Your task to perform on an android device: Empty the shopping cart on amazon. Image 0: 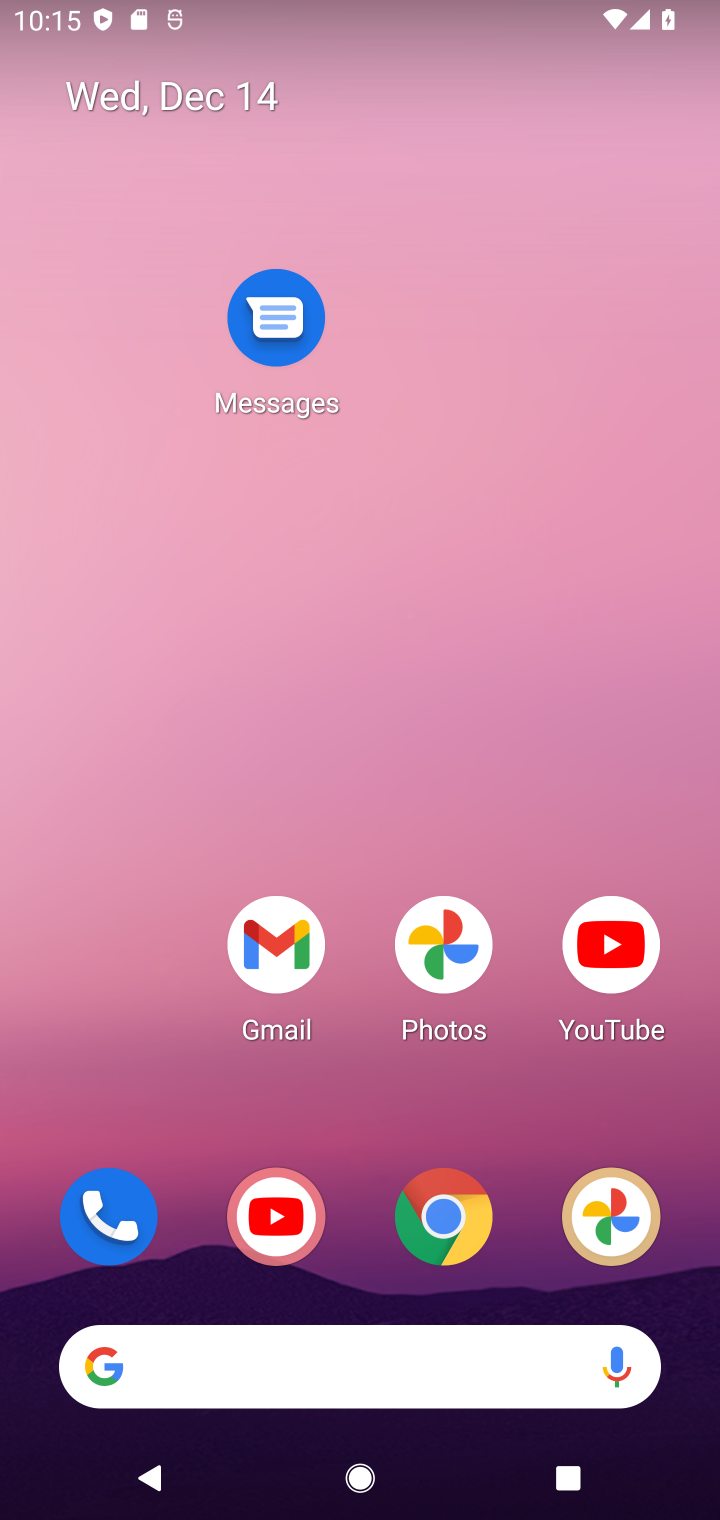
Step 0: drag from (428, 1351) to (340, 414)
Your task to perform on an android device: Empty the shopping cart on amazon. Image 1: 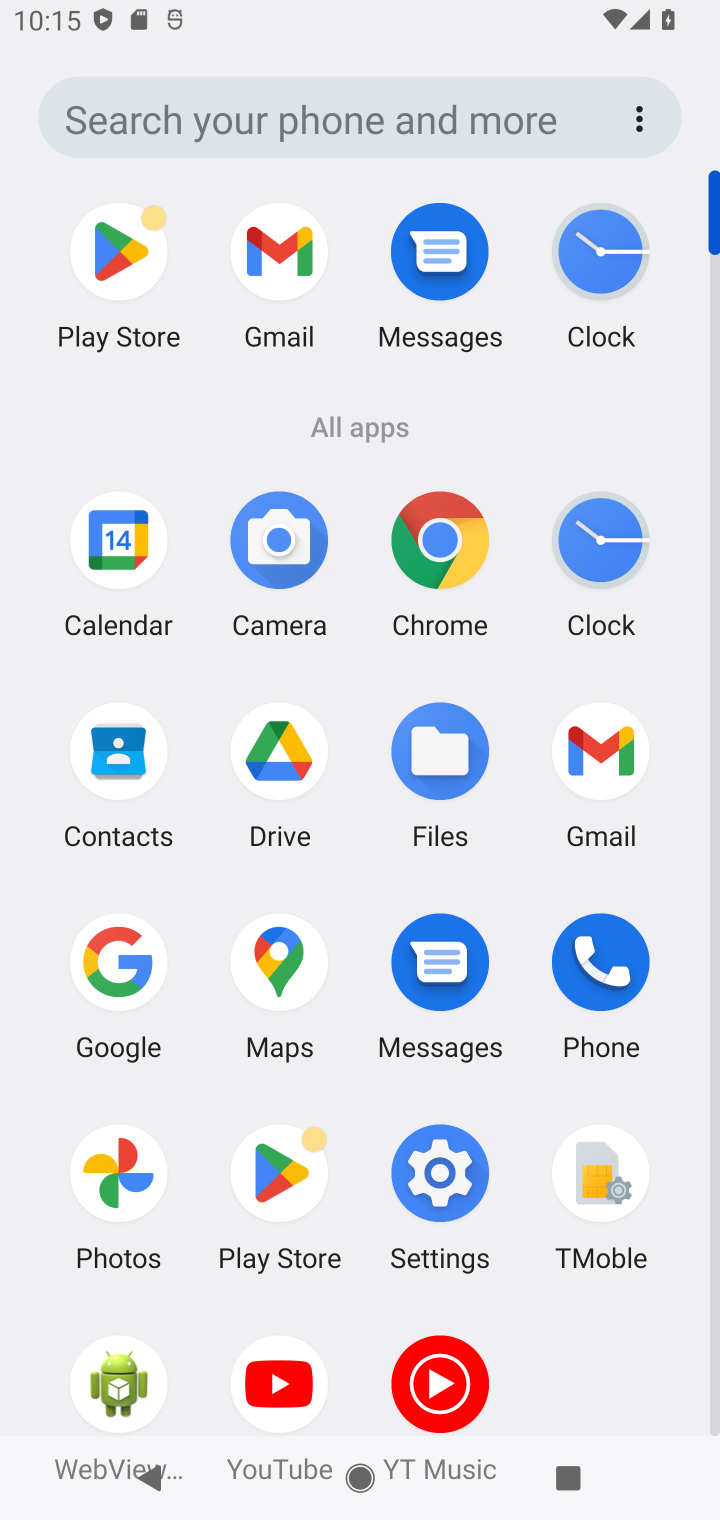
Step 1: click (143, 983)
Your task to perform on an android device: Empty the shopping cart on amazon. Image 2: 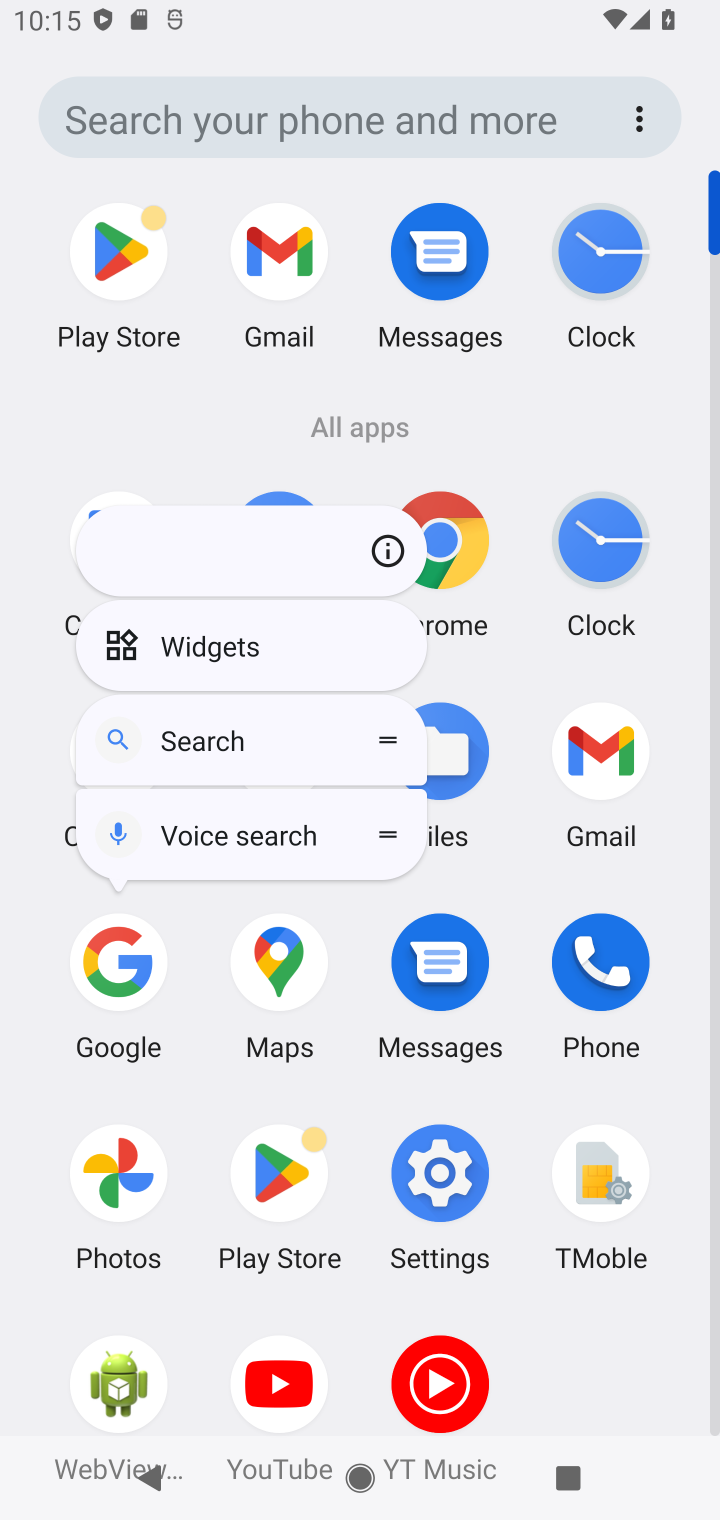
Step 2: click (98, 956)
Your task to perform on an android device: Empty the shopping cart on amazon. Image 3: 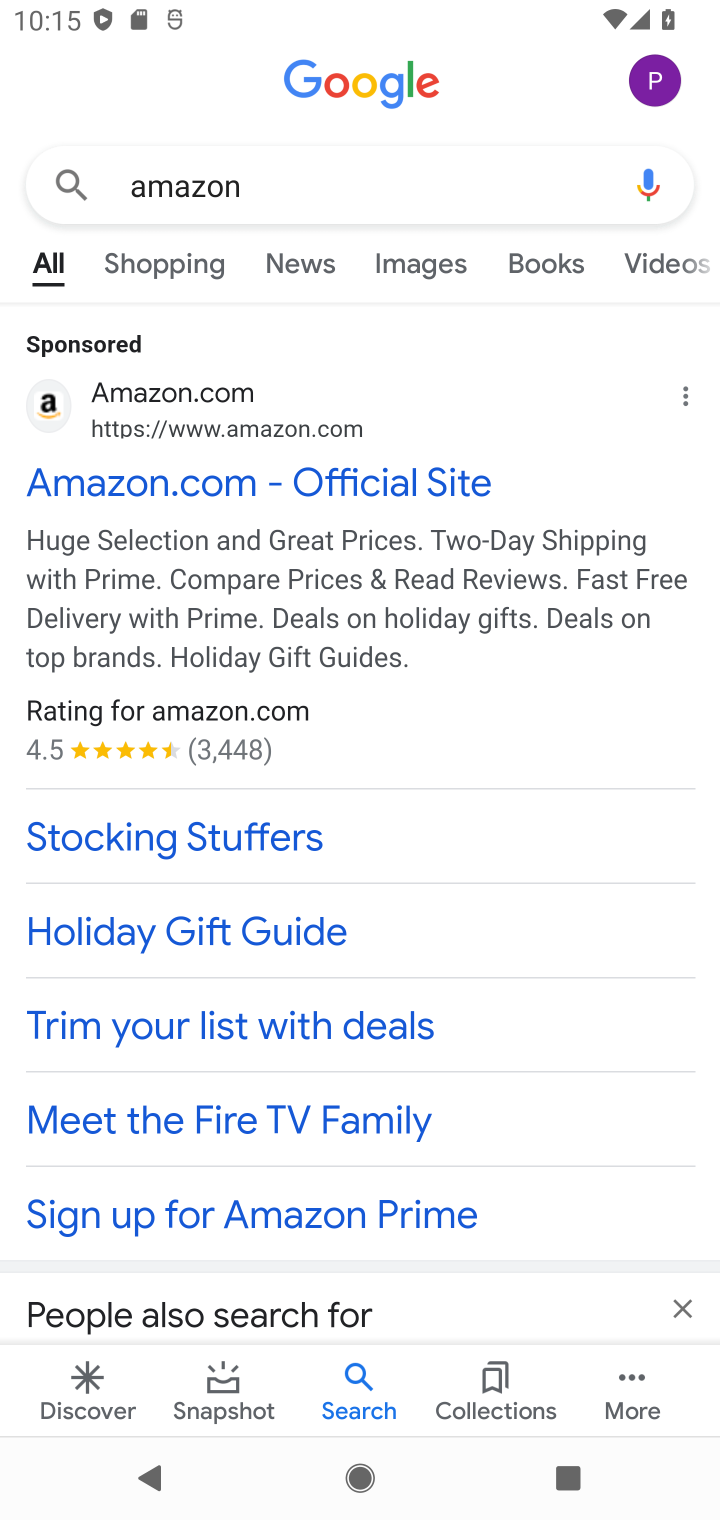
Step 3: click (176, 474)
Your task to perform on an android device: Empty the shopping cart on amazon. Image 4: 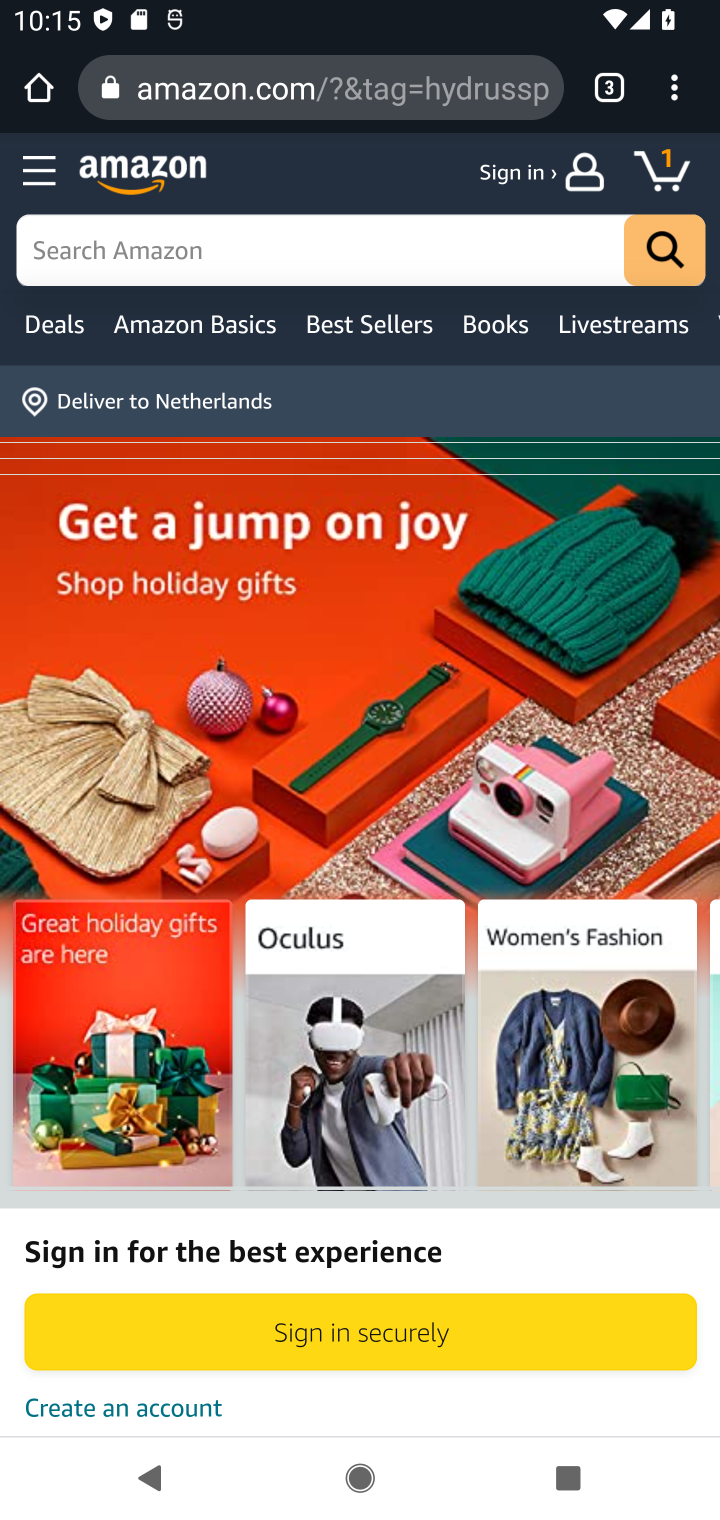
Step 4: click (659, 174)
Your task to perform on an android device: Empty the shopping cart on amazon. Image 5: 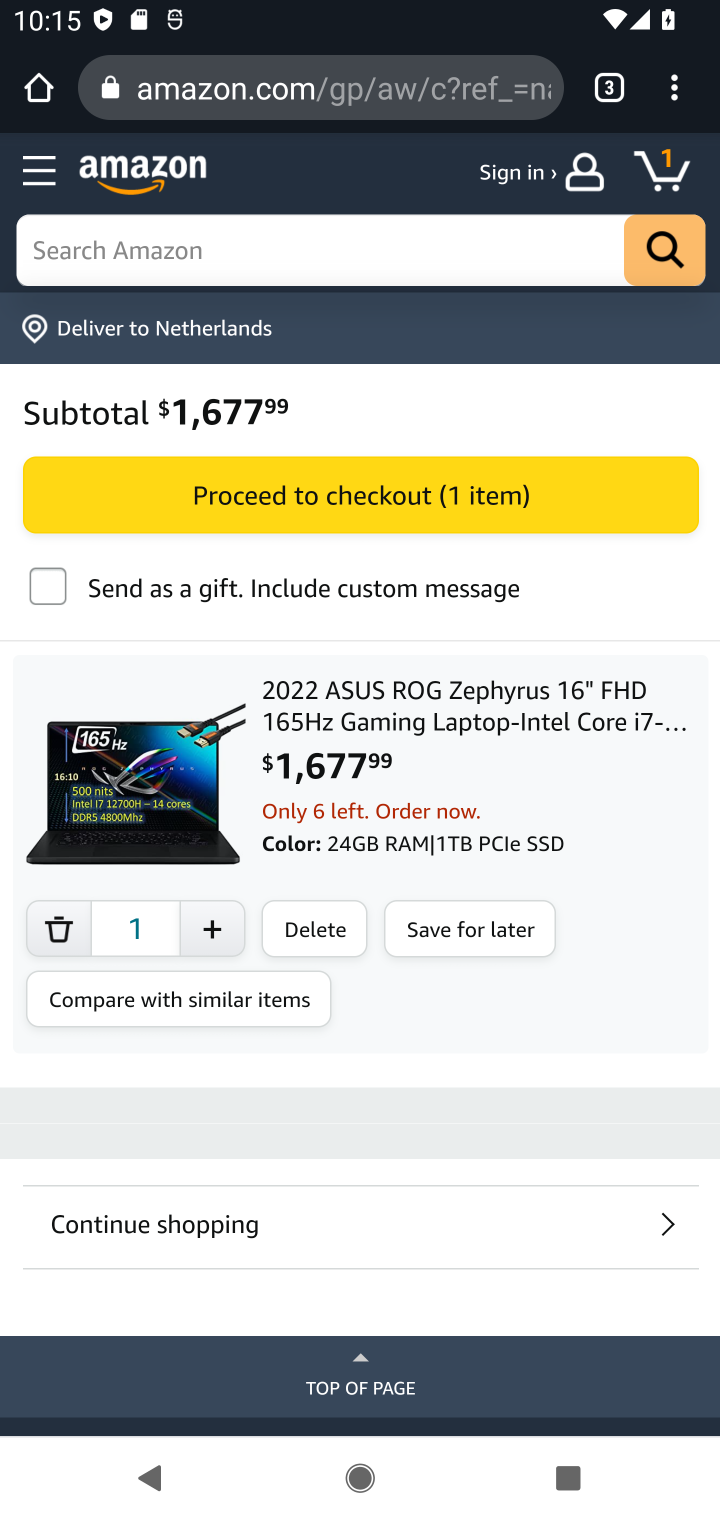
Step 5: click (49, 920)
Your task to perform on an android device: Empty the shopping cart on amazon. Image 6: 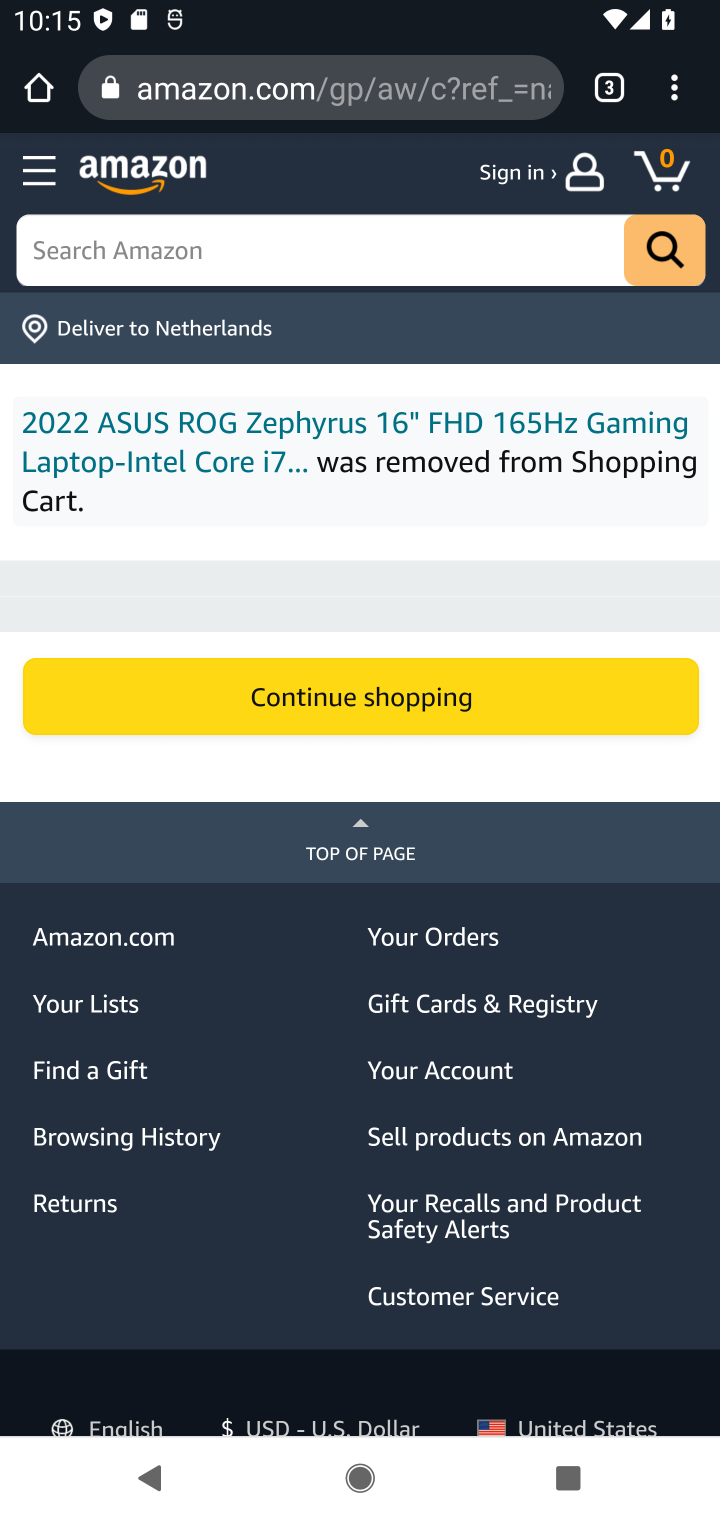
Step 6: task complete